Your task to perform on an android device: What's on my calendar today? Image 0: 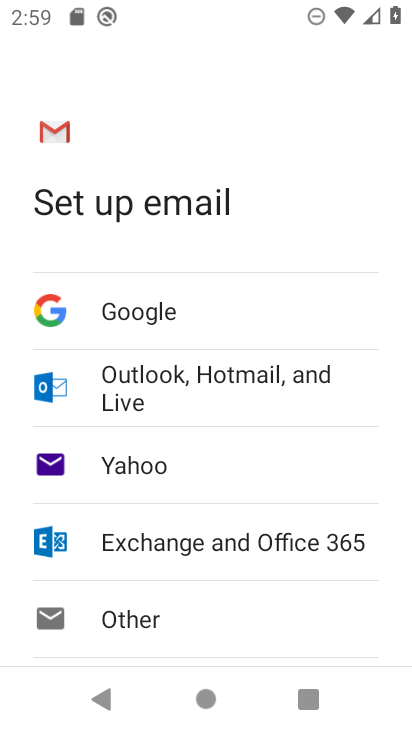
Step 0: press home button
Your task to perform on an android device: What's on my calendar today? Image 1: 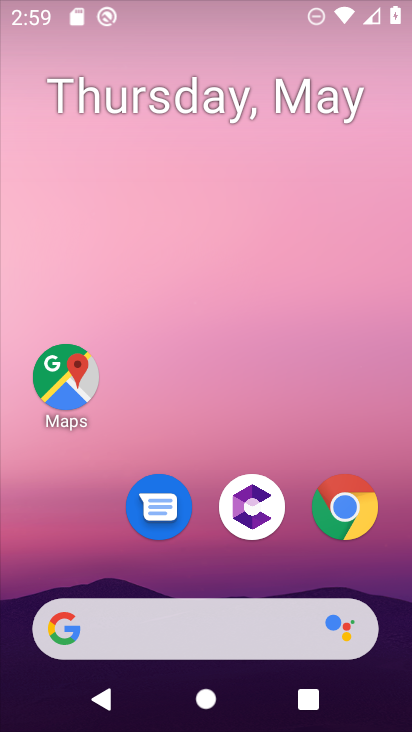
Step 1: drag from (235, 421) to (163, 119)
Your task to perform on an android device: What's on my calendar today? Image 2: 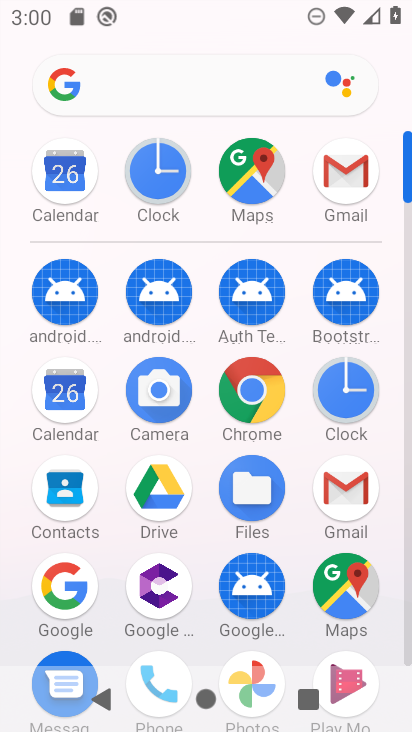
Step 2: click (74, 193)
Your task to perform on an android device: What's on my calendar today? Image 3: 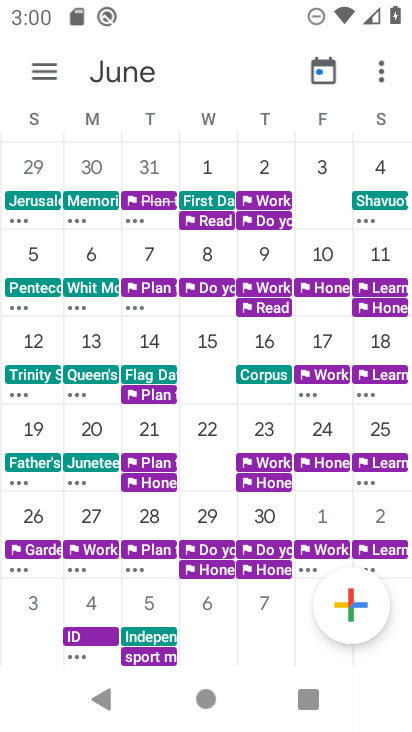
Step 3: click (37, 76)
Your task to perform on an android device: What's on my calendar today? Image 4: 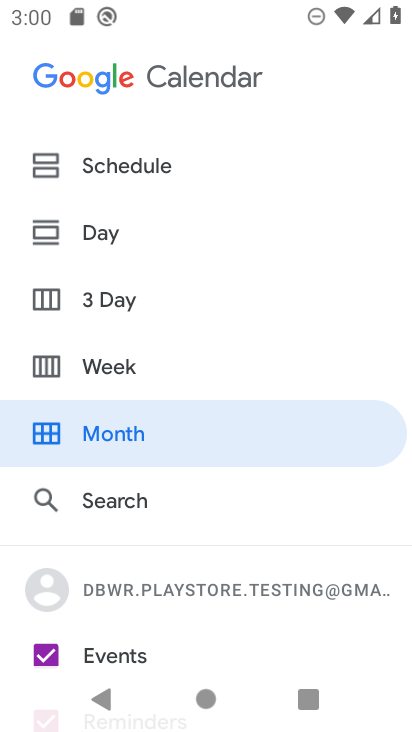
Step 4: click (123, 217)
Your task to perform on an android device: What's on my calendar today? Image 5: 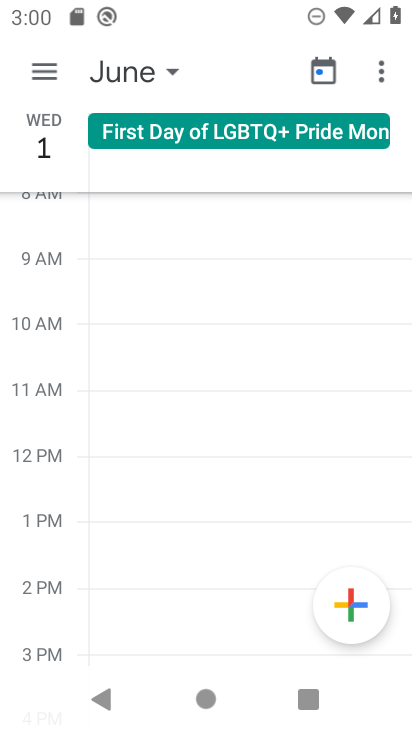
Step 5: click (44, 74)
Your task to perform on an android device: What's on my calendar today? Image 6: 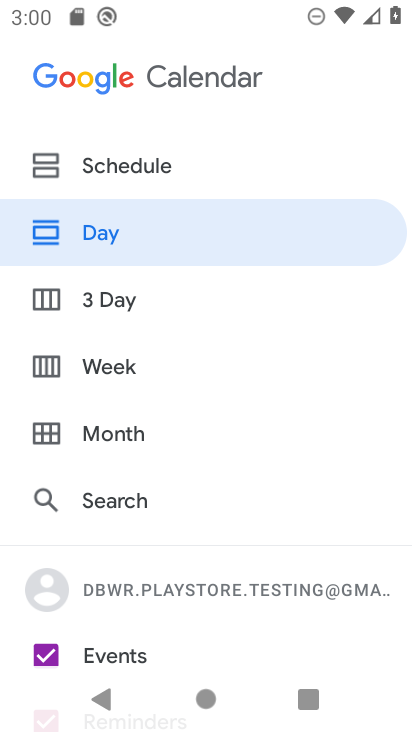
Step 6: click (153, 437)
Your task to perform on an android device: What's on my calendar today? Image 7: 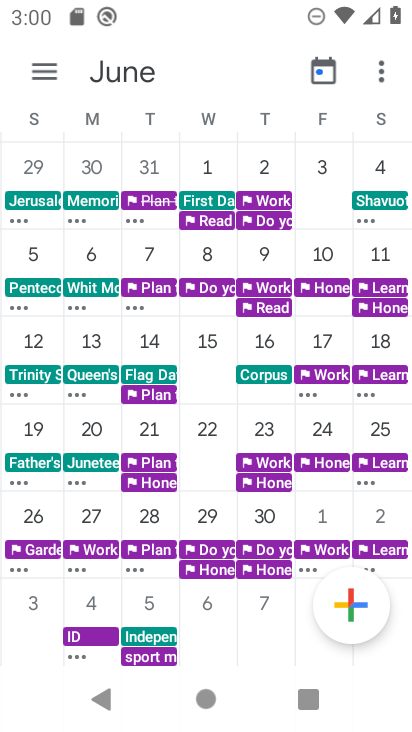
Step 7: drag from (35, 237) to (367, 237)
Your task to perform on an android device: What's on my calendar today? Image 8: 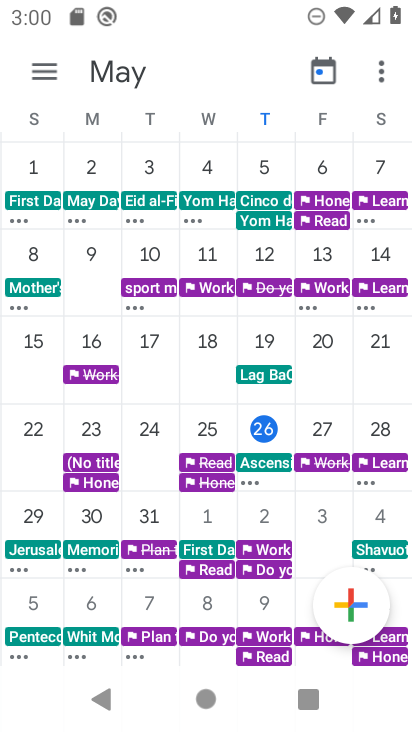
Step 8: click (37, 76)
Your task to perform on an android device: What's on my calendar today? Image 9: 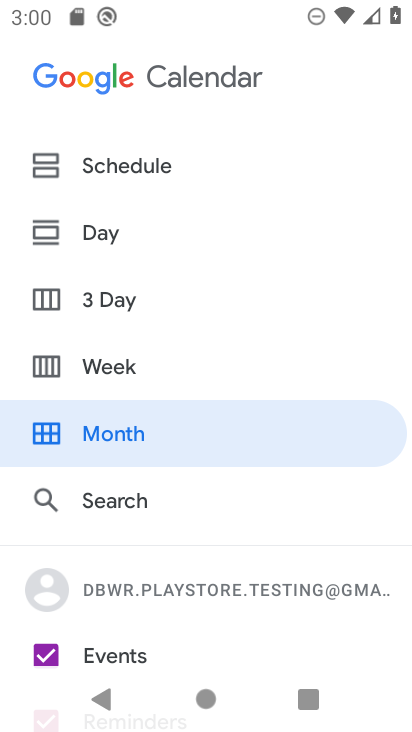
Step 9: click (65, 226)
Your task to perform on an android device: What's on my calendar today? Image 10: 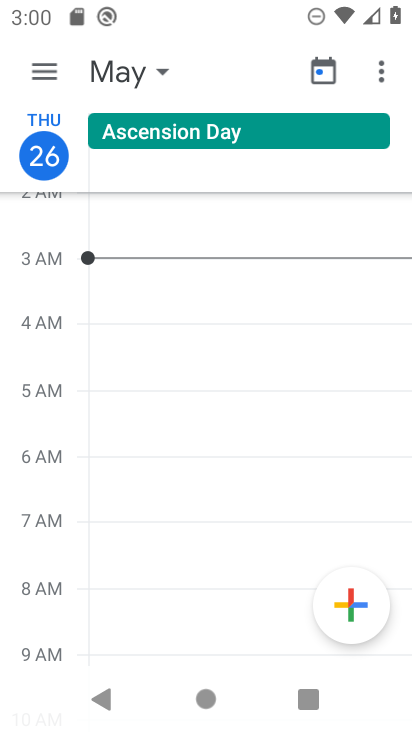
Step 10: task complete